Your task to perform on an android device: Go to sound settings Image 0: 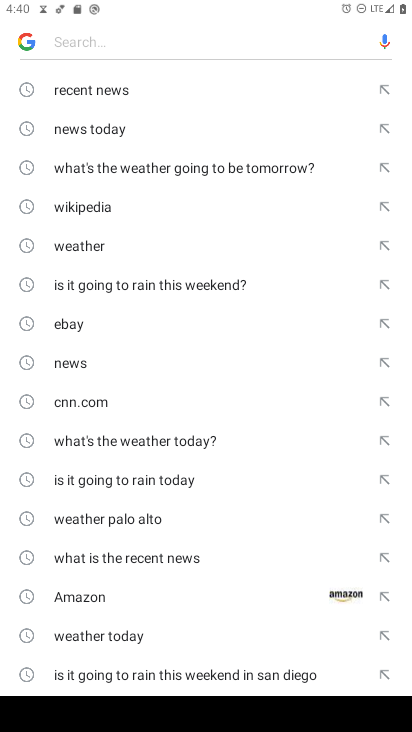
Step 0: press home button
Your task to perform on an android device: Go to sound settings Image 1: 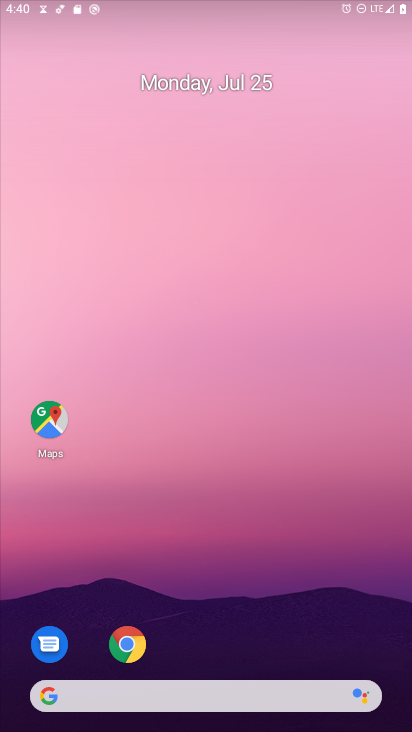
Step 1: drag from (258, 408) to (218, 52)
Your task to perform on an android device: Go to sound settings Image 2: 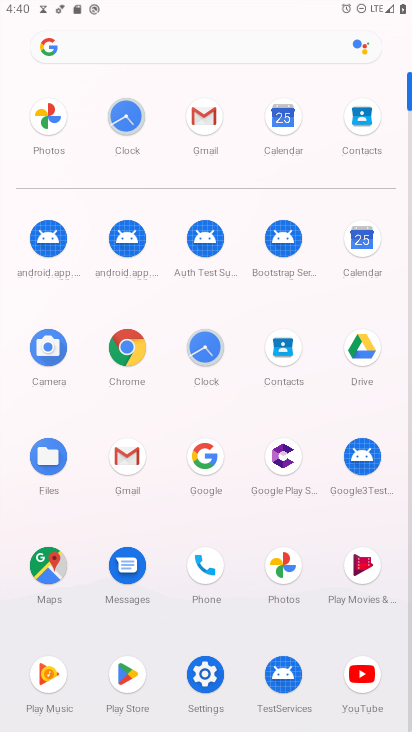
Step 2: click (208, 667)
Your task to perform on an android device: Go to sound settings Image 3: 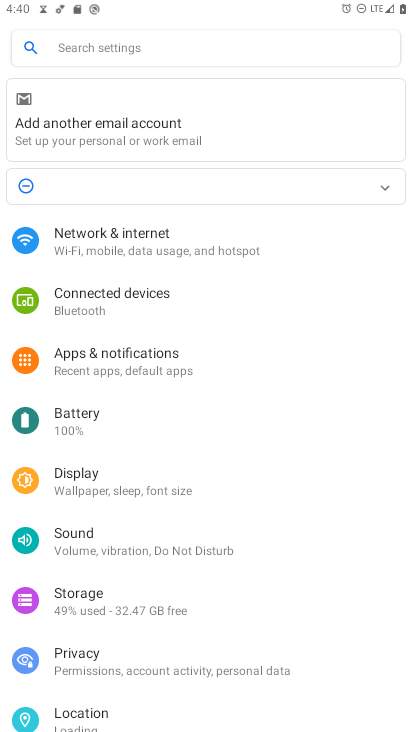
Step 3: click (125, 544)
Your task to perform on an android device: Go to sound settings Image 4: 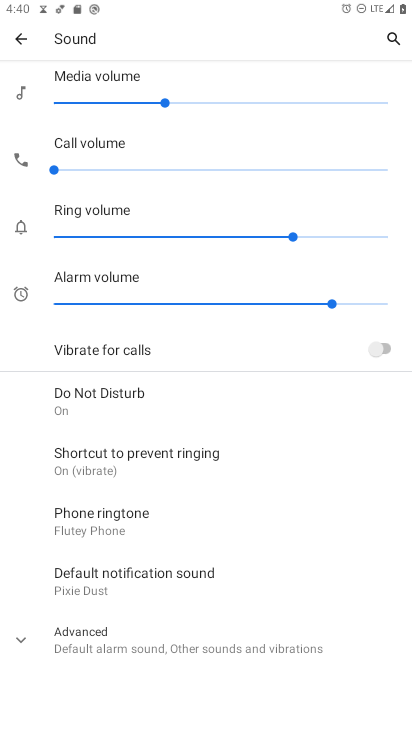
Step 4: task complete